Your task to perform on an android device: change timer sound Image 0: 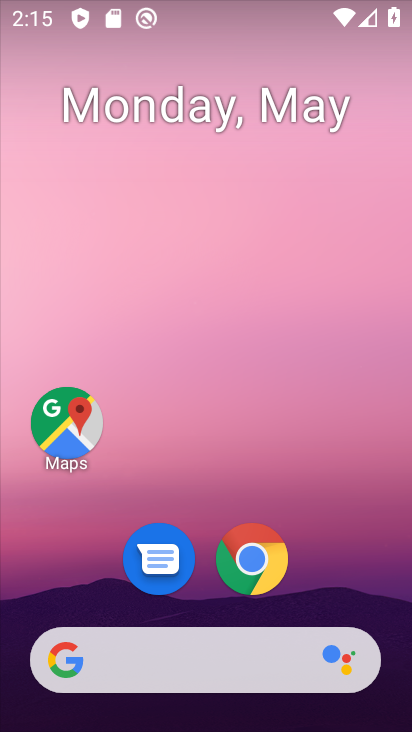
Step 0: drag from (324, 577) to (390, 128)
Your task to perform on an android device: change timer sound Image 1: 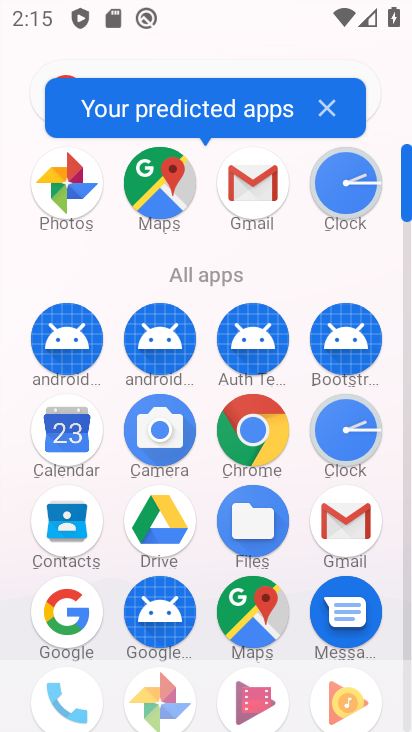
Step 1: click (358, 198)
Your task to perform on an android device: change timer sound Image 2: 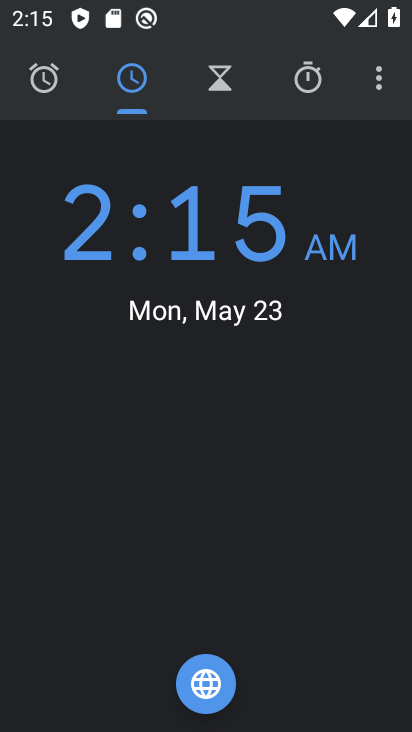
Step 2: click (365, 78)
Your task to perform on an android device: change timer sound Image 3: 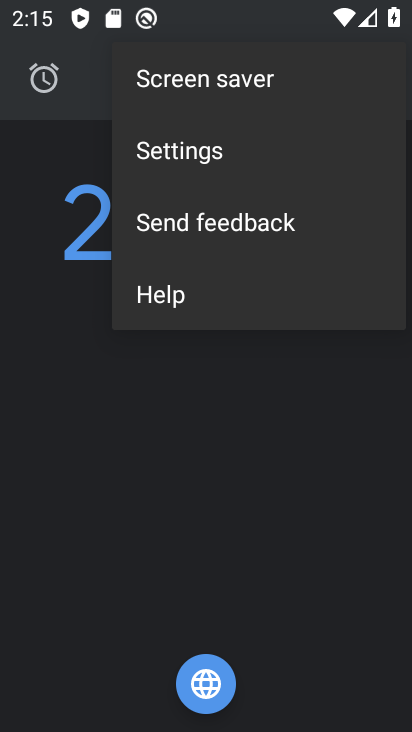
Step 3: click (171, 169)
Your task to perform on an android device: change timer sound Image 4: 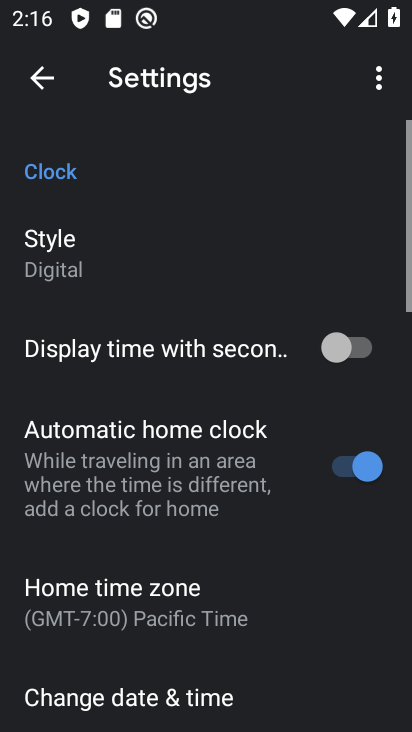
Step 4: drag from (217, 515) to (241, 152)
Your task to perform on an android device: change timer sound Image 5: 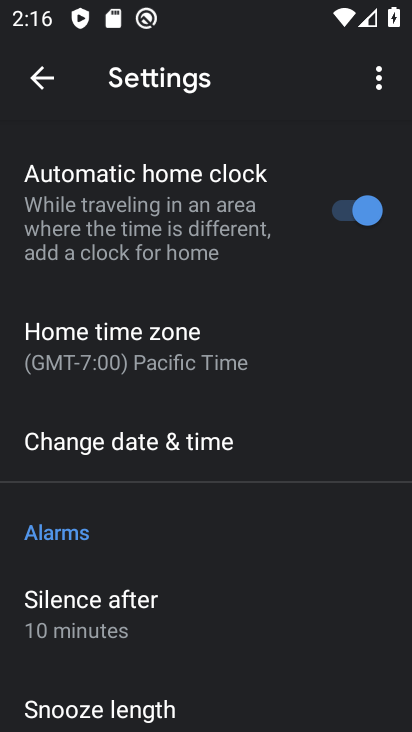
Step 5: drag from (166, 552) to (238, 124)
Your task to perform on an android device: change timer sound Image 6: 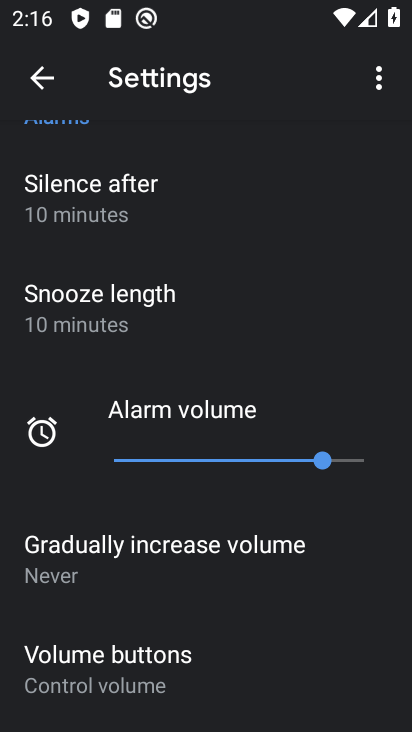
Step 6: drag from (217, 559) to (283, 175)
Your task to perform on an android device: change timer sound Image 7: 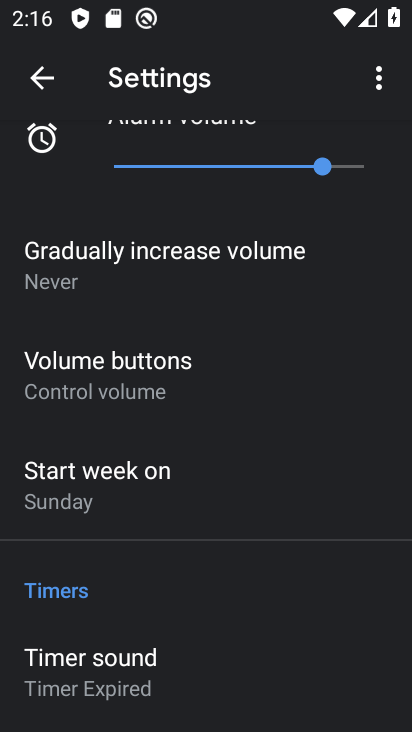
Step 7: drag from (194, 530) to (220, 177)
Your task to perform on an android device: change timer sound Image 8: 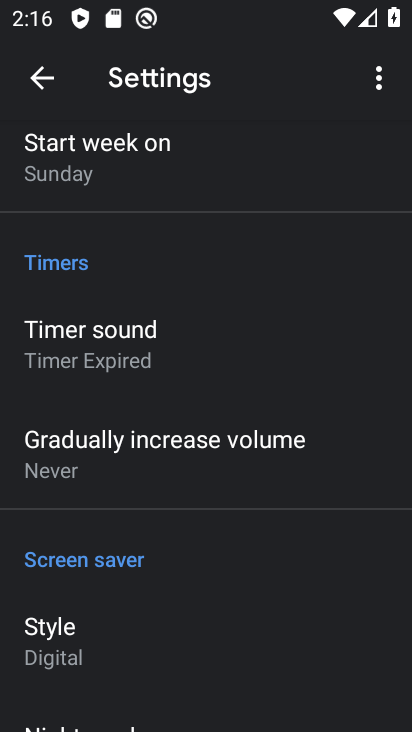
Step 8: click (155, 317)
Your task to perform on an android device: change timer sound Image 9: 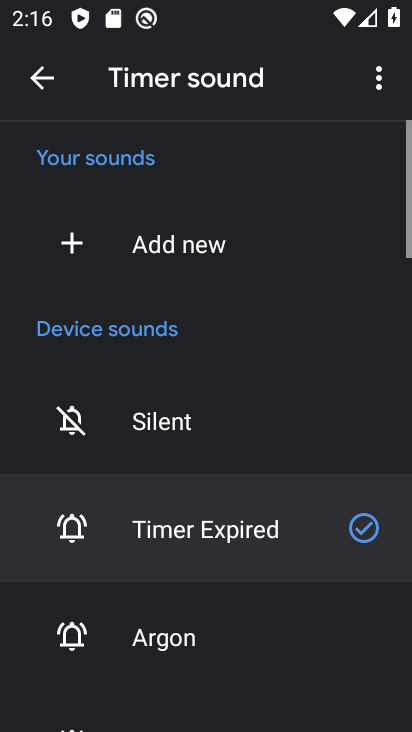
Step 9: click (155, 642)
Your task to perform on an android device: change timer sound Image 10: 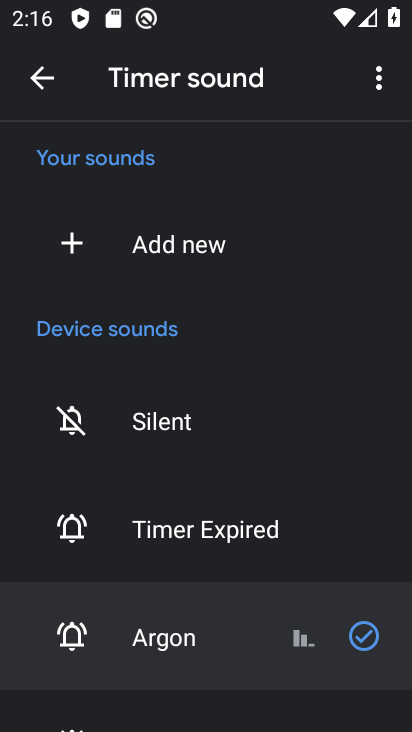
Step 10: task complete